Your task to perform on an android device: see creations saved in the google photos Image 0: 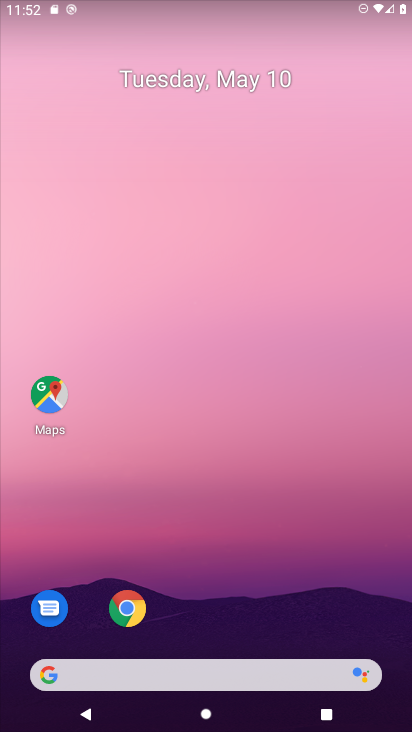
Step 0: drag from (303, 588) to (253, 101)
Your task to perform on an android device: see creations saved in the google photos Image 1: 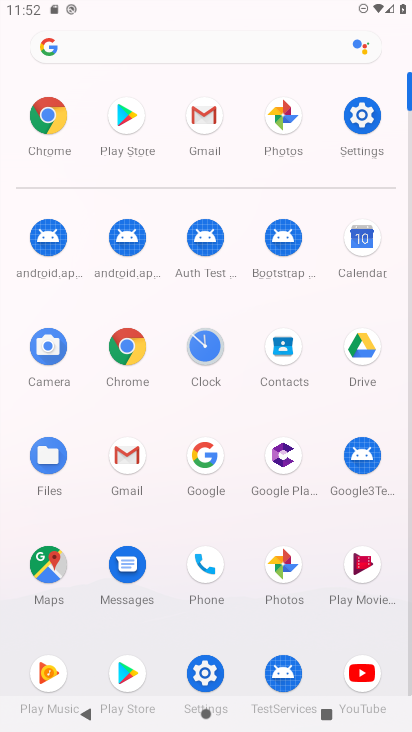
Step 1: click (287, 114)
Your task to perform on an android device: see creations saved in the google photos Image 2: 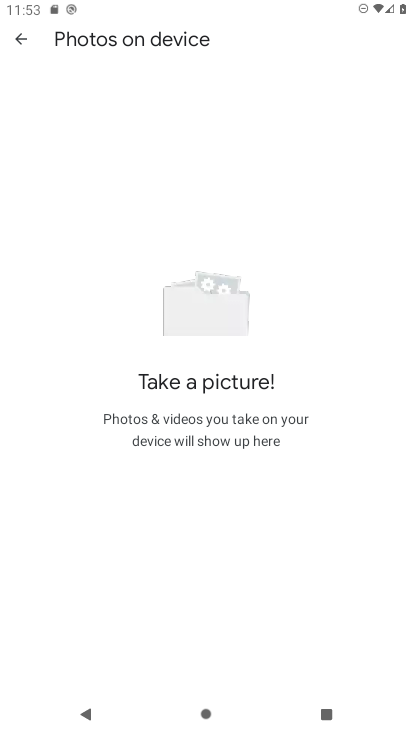
Step 2: click (23, 32)
Your task to perform on an android device: see creations saved in the google photos Image 3: 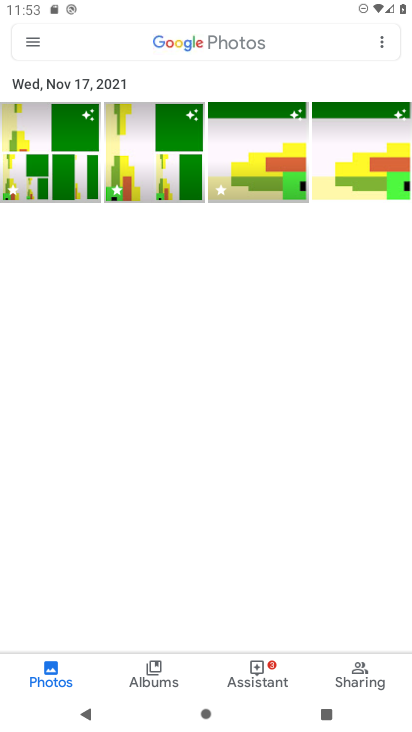
Step 3: click (223, 37)
Your task to perform on an android device: see creations saved in the google photos Image 4: 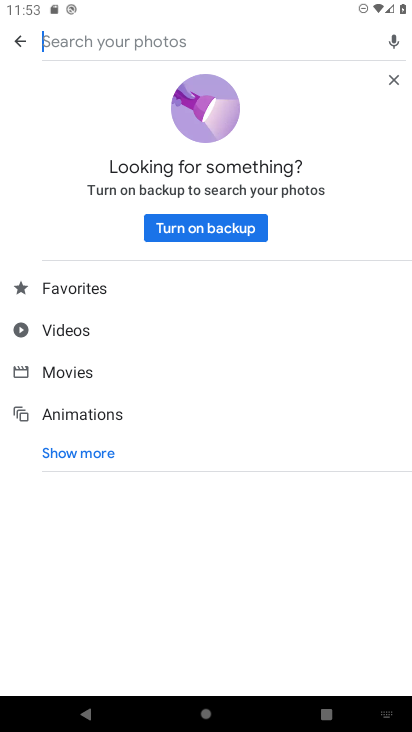
Step 4: click (98, 442)
Your task to perform on an android device: see creations saved in the google photos Image 5: 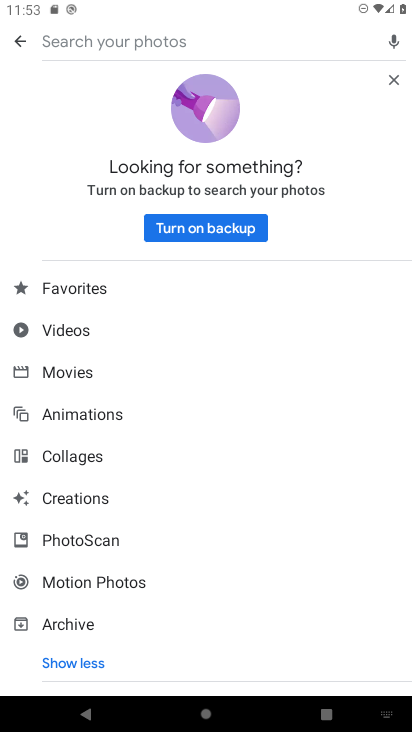
Step 5: click (96, 497)
Your task to perform on an android device: see creations saved in the google photos Image 6: 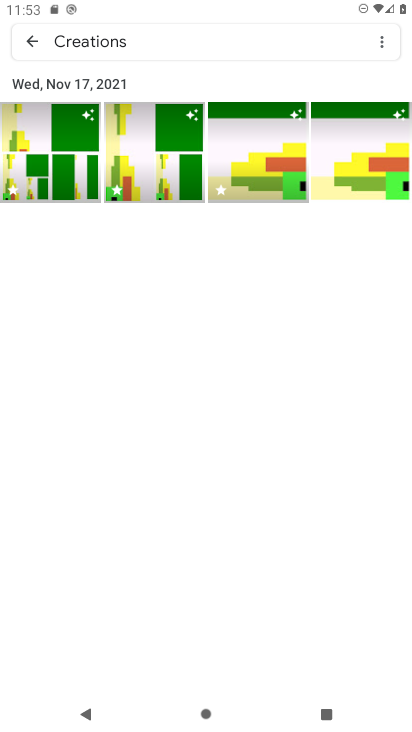
Step 6: task complete